Your task to perform on an android device: Open display settings Image 0: 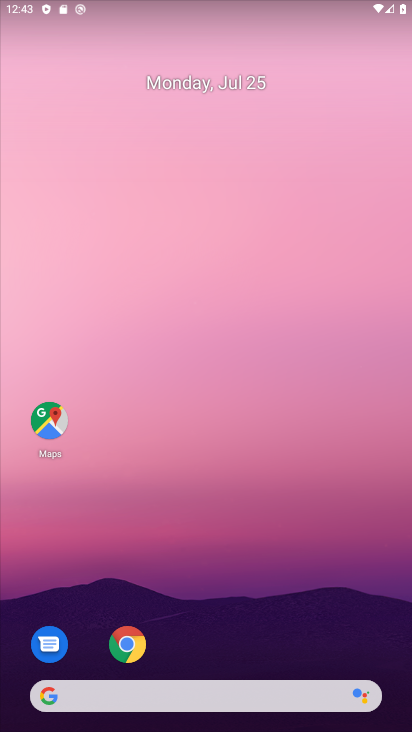
Step 0: drag from (325, 573) to (299, 0)
Your task to perform on an android device: Open display settings Image 1: 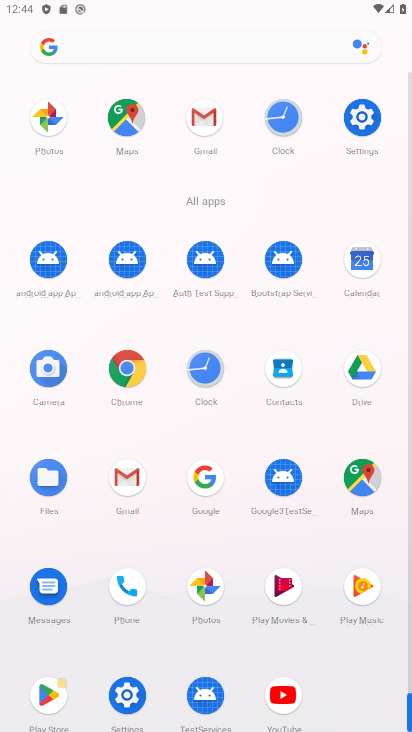
Step 1: click (358, 118)
Your task to perform on an android device: Open display settings Image 2: 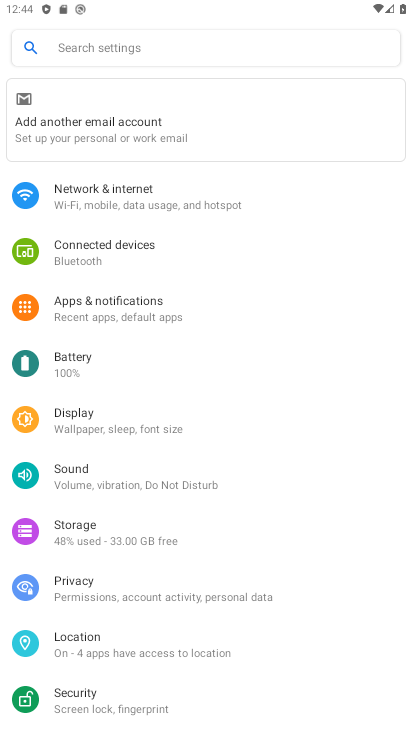
Step 2: click (134, 419)
Your task to perform on an android device: Open display settings Image 3: 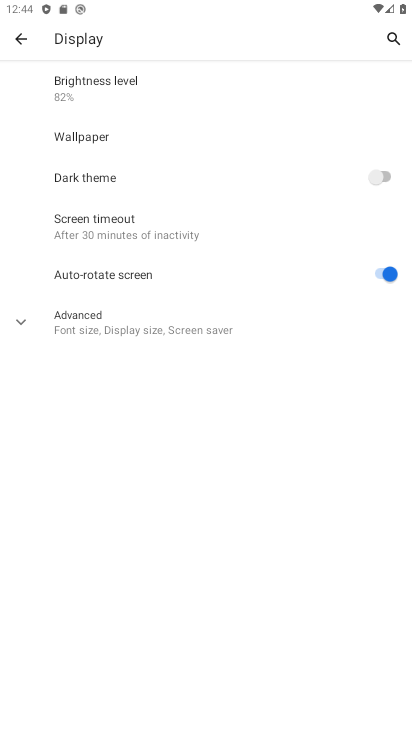
Step 3: task complete